Your task to perform on an android device: Open Youtube and go to the subscriptions tab Image 0: 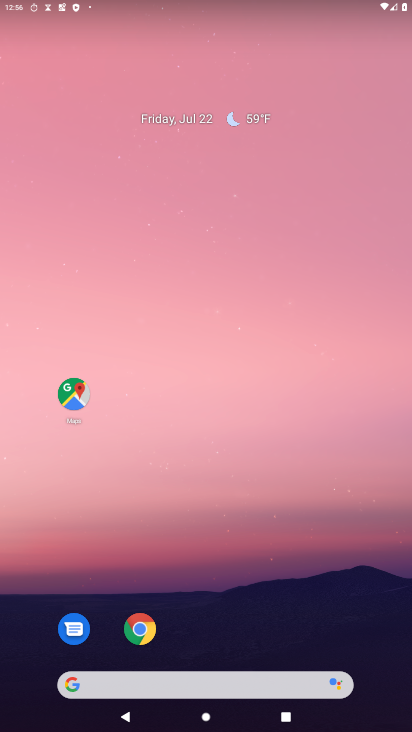
Step 0: drag from (319, 602) to (386, 10)
Your task to perform on an android device: Open Youtube and go to the subscriptions tab Image 1: 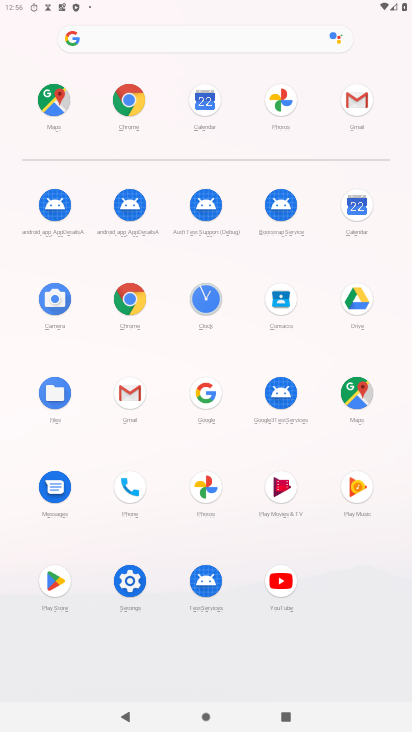
Step 1: click (274, 578)
Your task to perform on an android device: Open Youtube and go to the subscriptions tab Image 2: 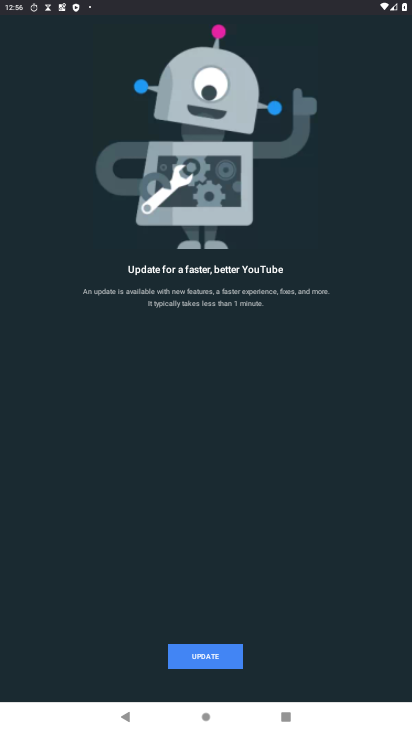
Step 2: click (223, 659)
Your task to perform on an android device: Open Youtube and go to the subscriptions tab Image 3: 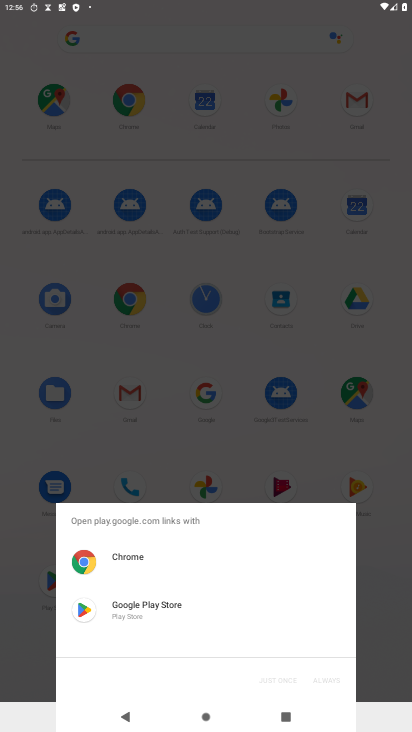
Step 3: click (149, 610)
Your task to perform on an android device: Open Youtube and go to the subscriptions tab Image 4: 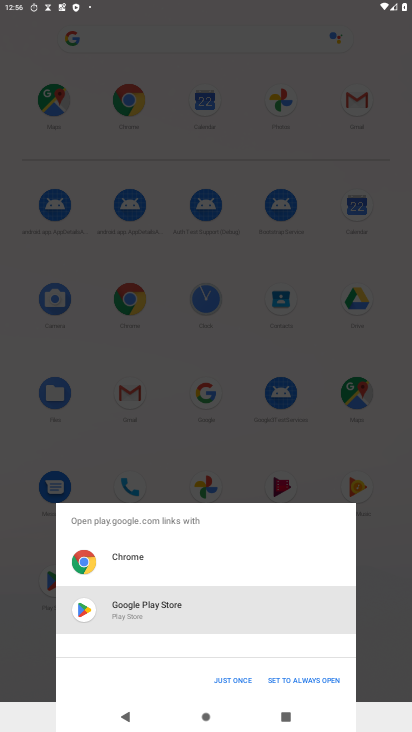
Step 4: click (236, 681)
Your task to perform on an android device: Open Youtube and go to the subscriptions tab Image 5: 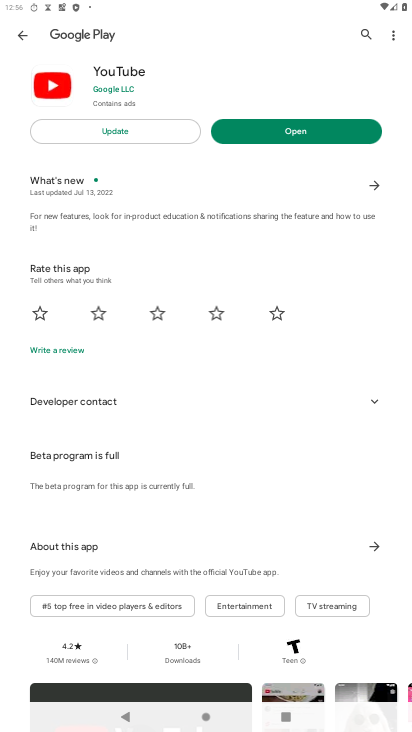
Step 5: click (101, 136)
Your task to perform on an android device: Open Youtube and go to the subscriptions tab Image 6: 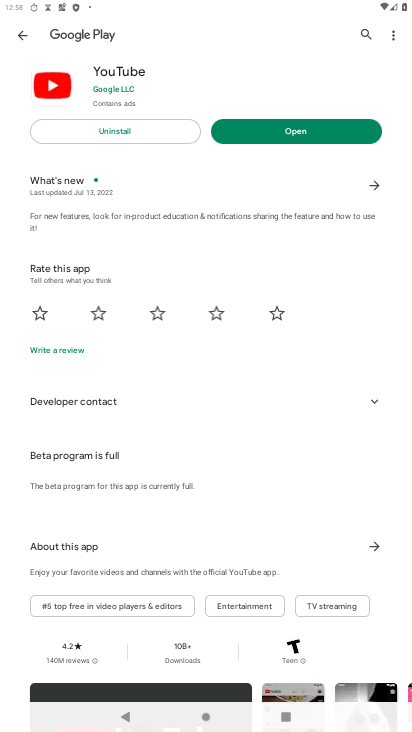
Step 6: click (278, 134)
Your task to perform on an android device: Open Youtube and go to the subscriptions tab Image 7: 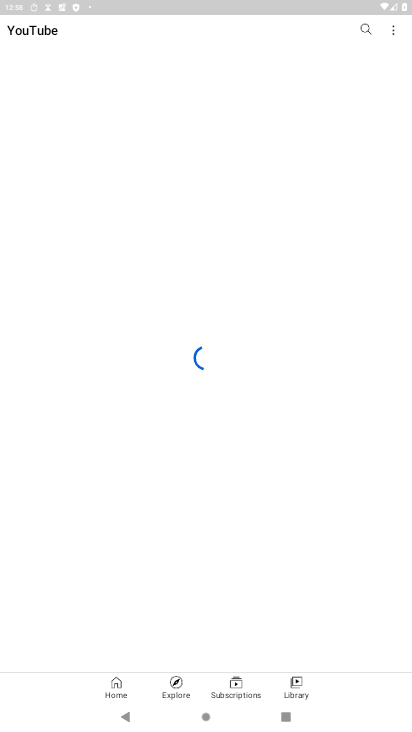
Step 7: click (248, 681)
Your task to perform on an android device: Open Youtube and go to the subscriptions tab Image 8: 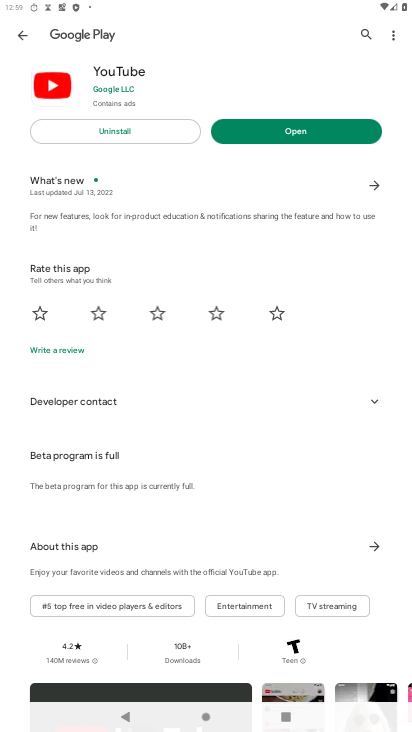
Step 8: click (289, 115)
Your task to perform on an android device: Open Youtube and go to the subscriptions tab Image 9: 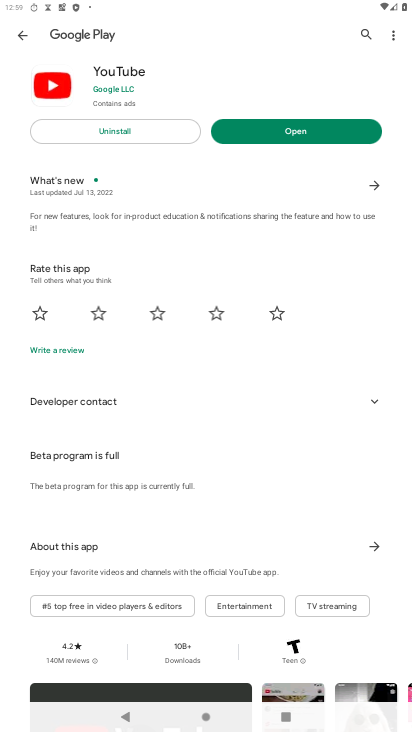
Step 9: click (266, 127)
Your task to perform on an android device: Open Youtube and go to the subscriptions tab Image 10: 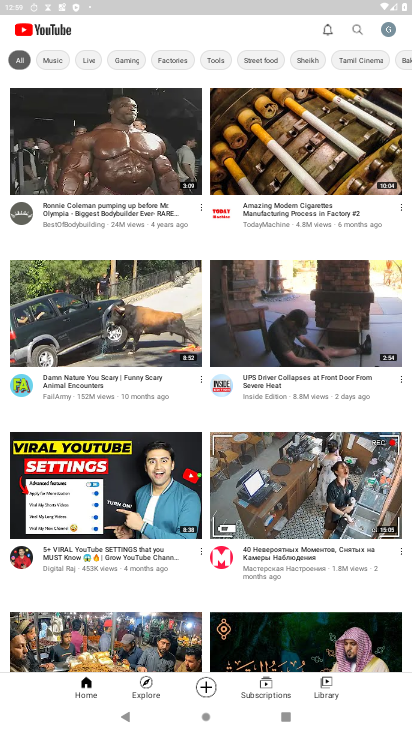
Step 10: click (241, 686)
Your task to perform on an android device: Open Youtube and go to the subscriptions tab Image 11: 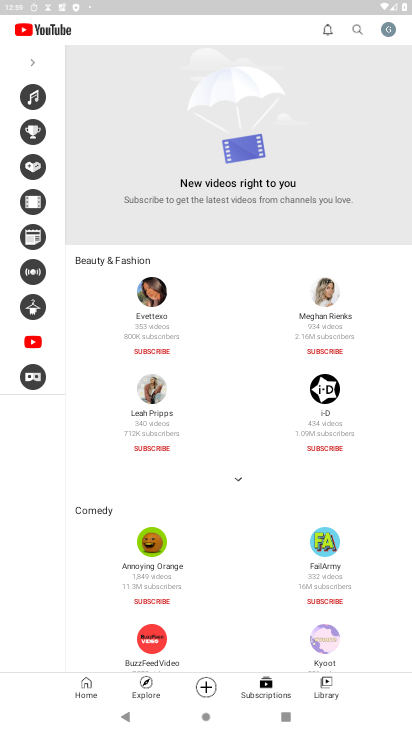
Step 11: task complete